Your task to perform on an android device: allow cookies in the chrome app Image 0: 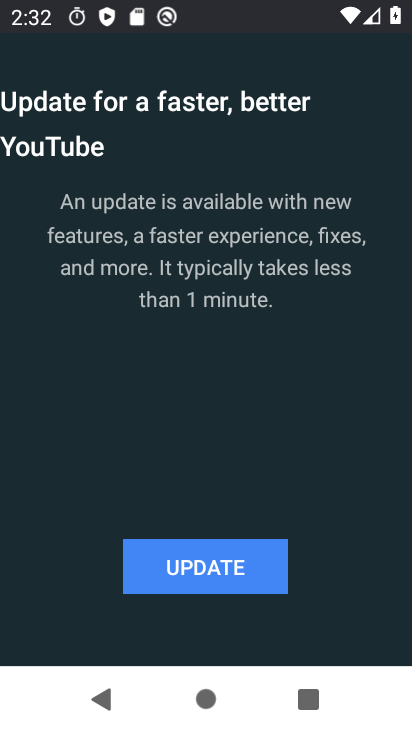
Step 0: press home button
Your task to perform on an android device: allow cookies in the chrome app Image 1: 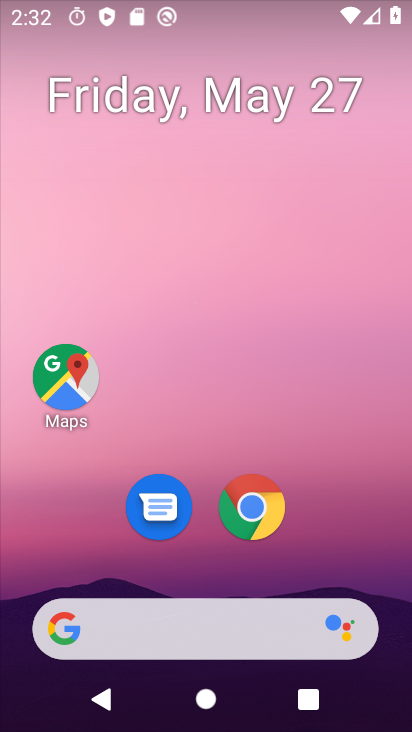
Step 1: click (257, 504)
Your task to perform on an android device: allow cookies in the chrome app Image 2: 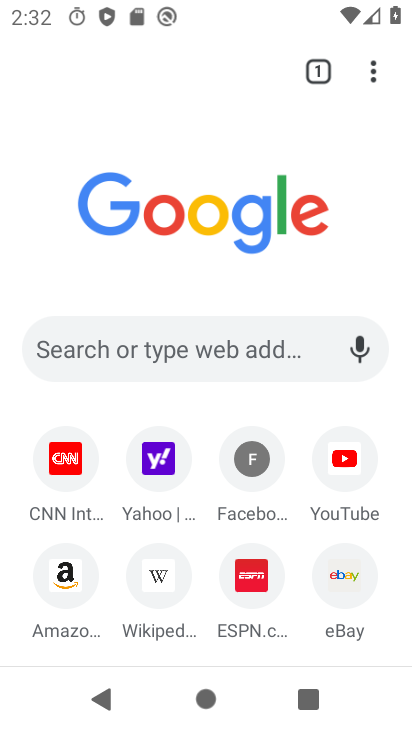
Step 2: click (374, 81)
Your task to perform on an android device: allow cookies in the chrome app Image 3: 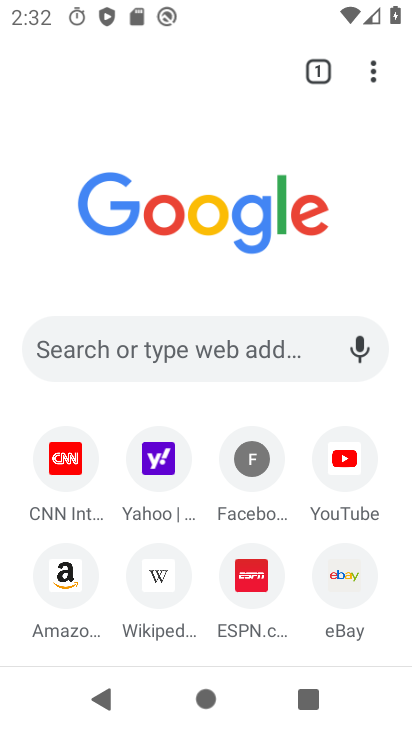
Step 3: click (367, 69)
Your task to perform on an android device: allow cookies in the chrome app Image 4: 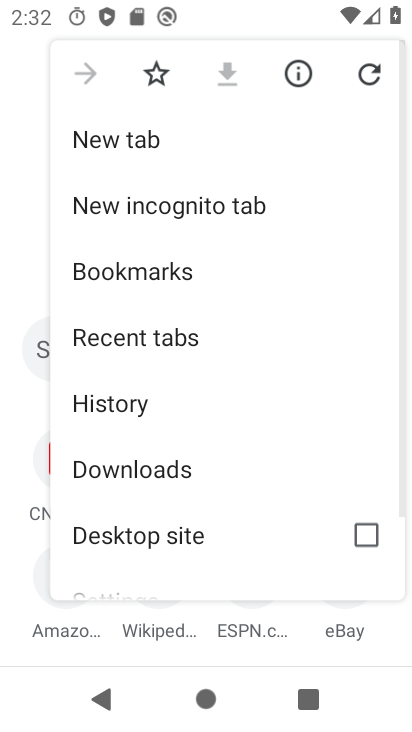
Step 4: drag from (183, 557) to (192, 194)
Your task to perform on an android device: allow cookies in the chrome app Image 5: 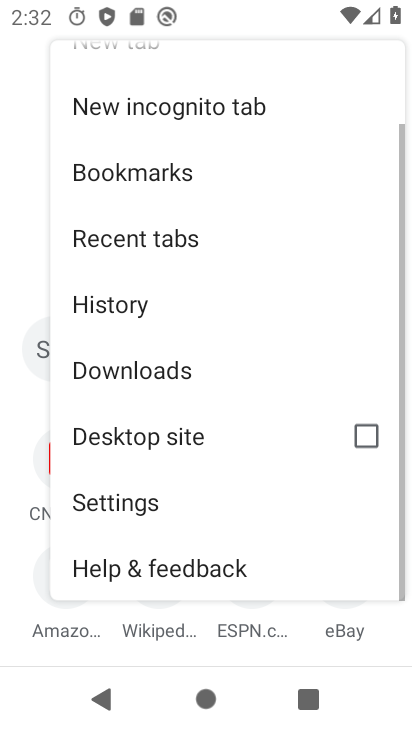
Step 5: click (106, 486)
Your task to perform on an android device: allow cookies in the chrome app Image 6: 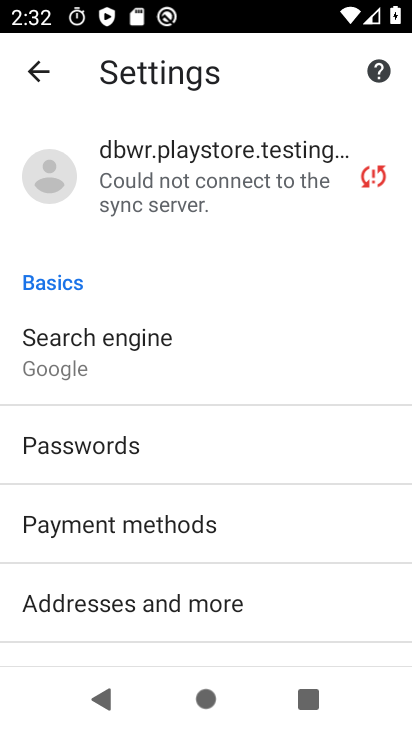
Step 6: drag from (112, 619) to (111, 378)
Your task to perform on an android device: allow cookies in the chrome app Image 7: 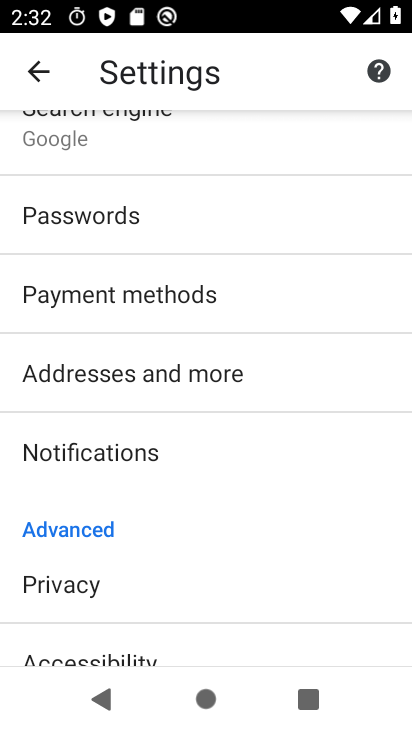
Step 7: click (89, 588)
Your task to perform on an android device: allow cookies in the chrome app Image 8: 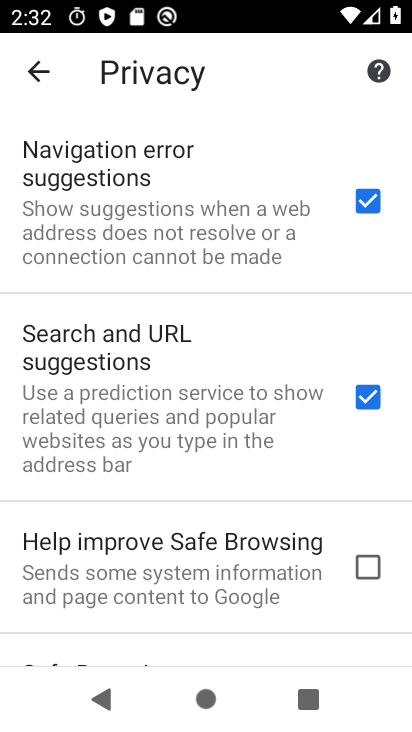
Step 8: click (31, 72)
Your task to perform on an android device: allow cookies in the chrome app Image 9: 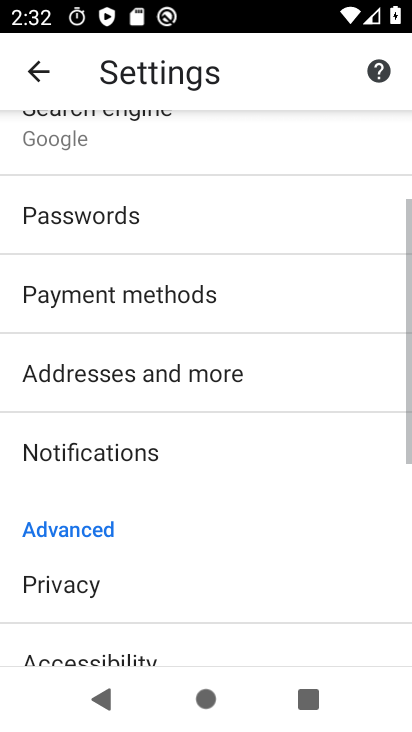
Step 9: drag from (130, 614) to (135, 220)
Your task to perform on an android device: allow cookies in the chrome app Image 10: 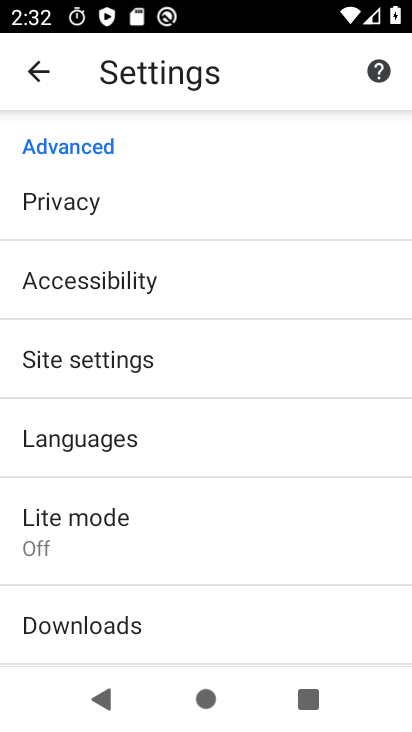
Step 10: click (64, 351)
Your task to perform on an android device: allow cookies in the chrome app Image 11: 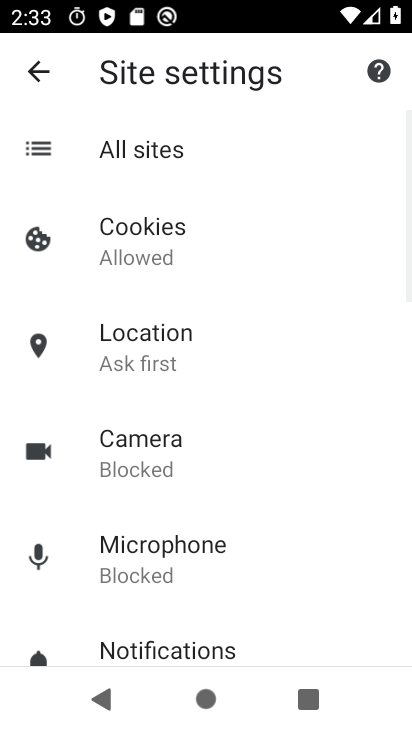
Step 11: click (126, 244)
Your task to perform on an android device: allow cookies in the chrome app Image 12: 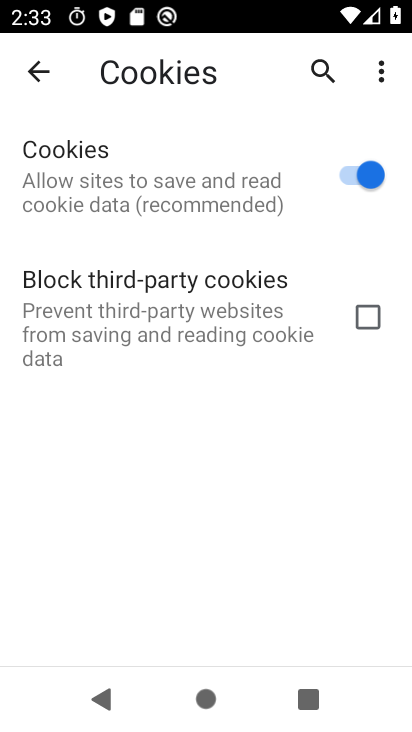
Step 12: task complete